Your task to perform on an android device: turn off sleep mode Image 0: 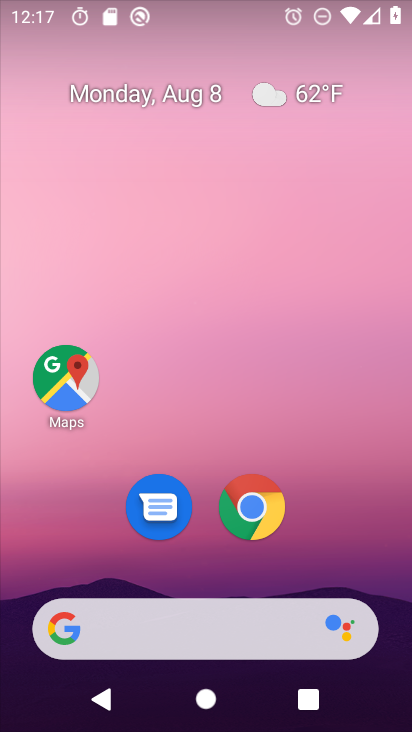
Step 0: drag from (341, 215) to (339, 20)
Your task to perform on an android device: turn off sleep mode Image 1: 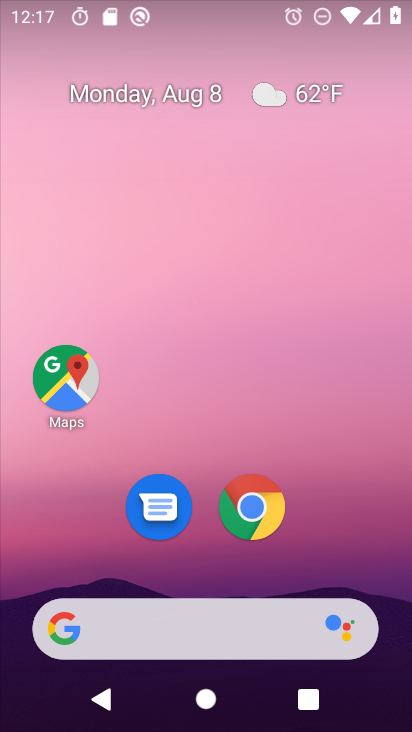
Step 1: drag from (352, 539) to (303, 94)
Your task to perform on an android device: turn off sleep mode Image 2: 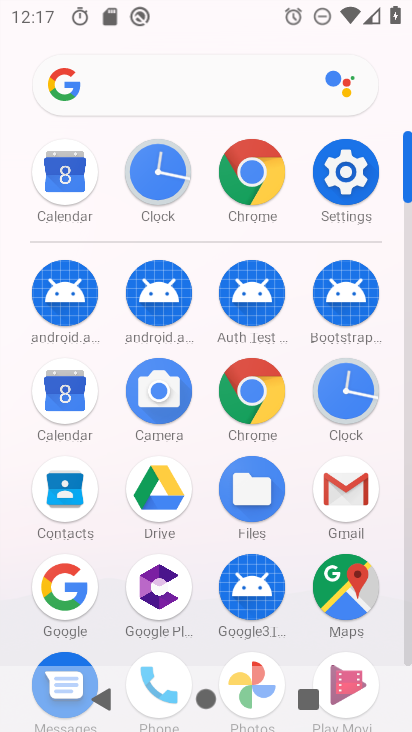
Step 2: click (355, 184)
Your task to perform on an android device: turn off sleep mode Image 3: 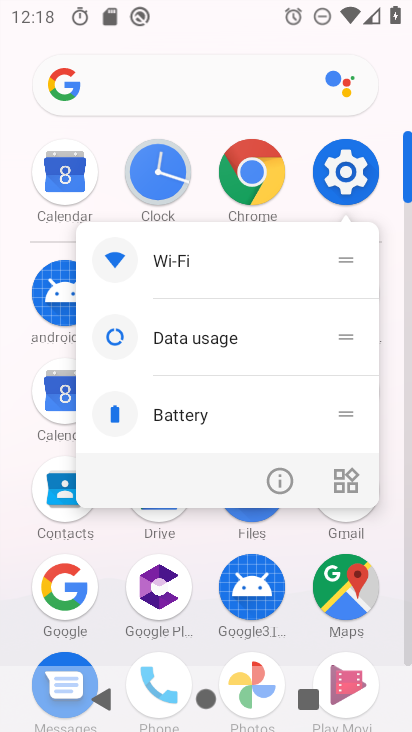
Step 3: click (355, 173)
Your task to perform on an android device: turn off sleep mode Image 4: 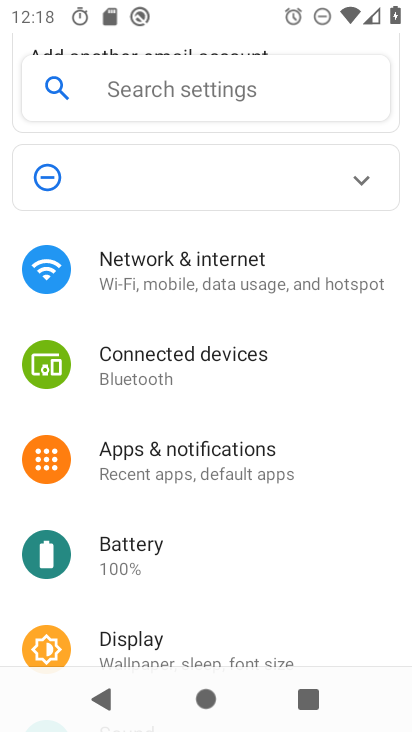
Step 4: click (120, 639)
Your task to perform on an android device: turn off sleep mode Image 5: 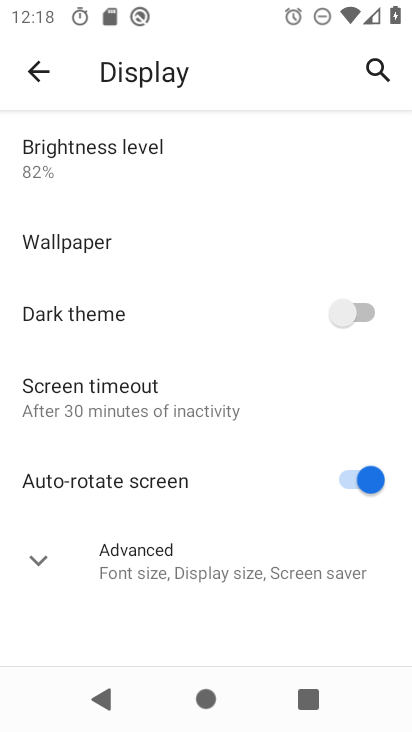
Step 5: click (141, 403)
Your task to perform on an android device: turn off sleep mode Image 6: 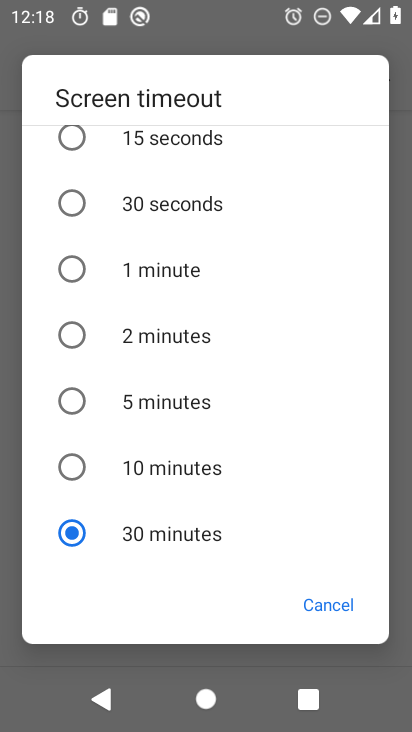
Step 6: task complete